Your task to perform on an android device: check data usage Image 0: 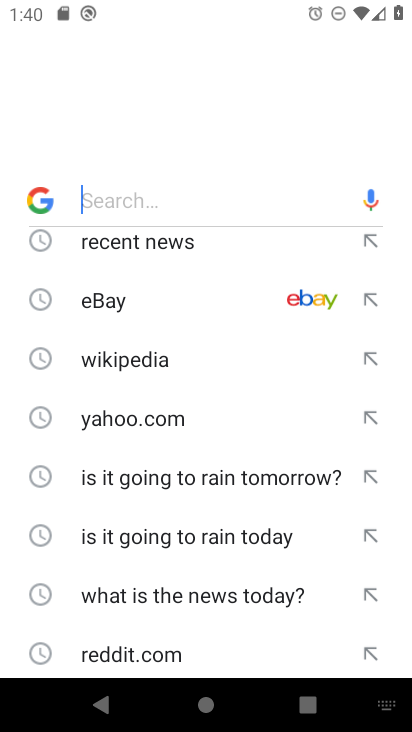
Step 0: press home button
Your task to perform on an android device: check data usage Image 1: 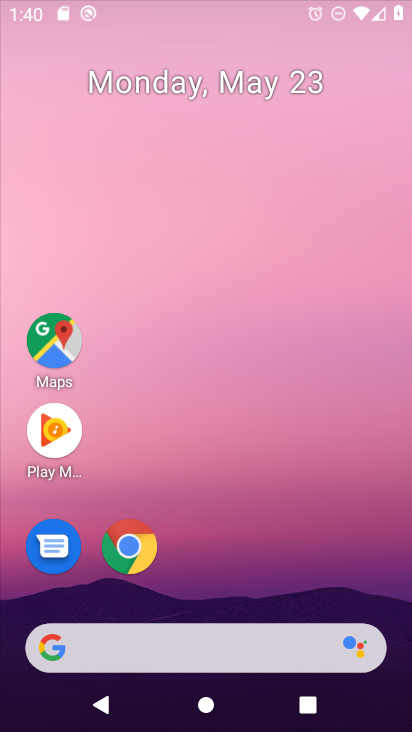
Step 1: drag from (262, 633) to (288, 164)
Your task to perform on an android device: check data usage Image 2: 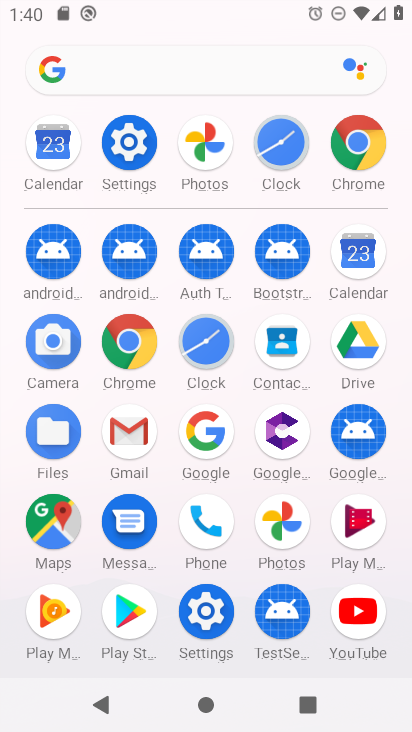
Step 2: click (133, 160)
Your task to perform on an android device: check data usage Image 3: 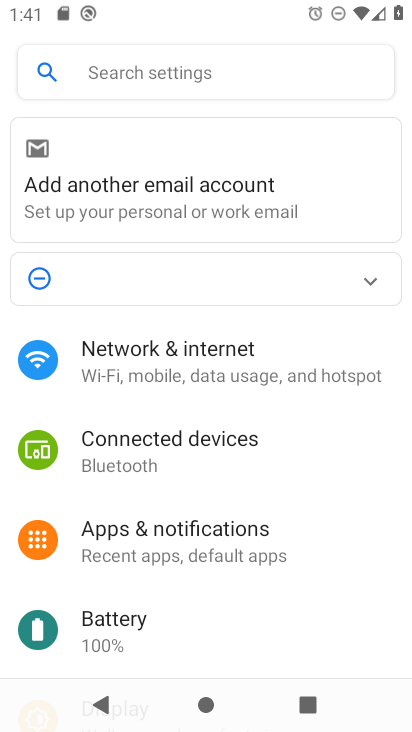
Step 3: click (274, 390)
Your task to perform on an android device: check data usage Image 4: 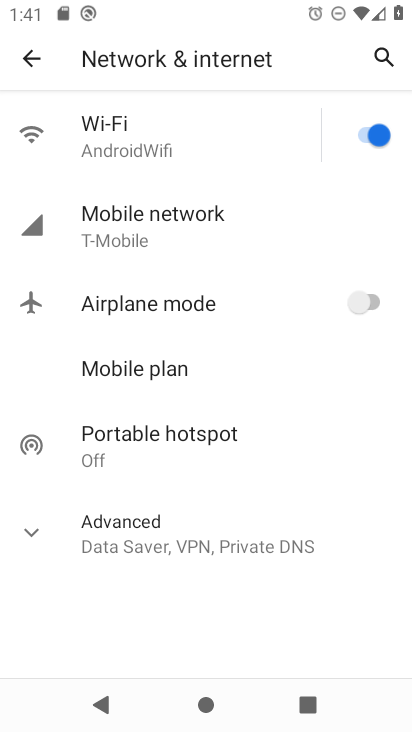
Step 4: click (204, 224)
Your task to perform on an android device: check data usage Image 5: 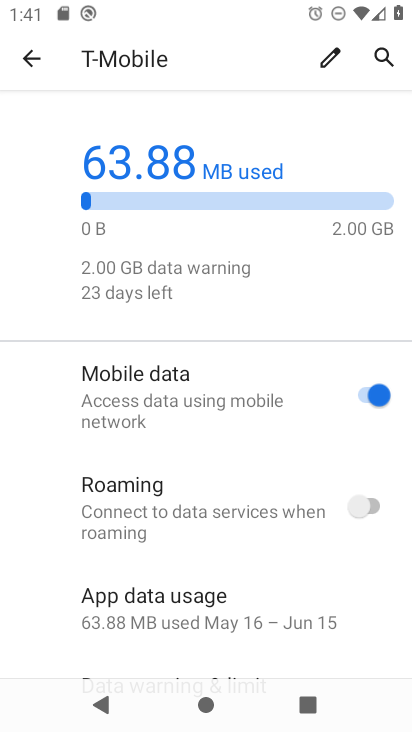
Step 5: drag from (178, 453) to (210, 307)
Your task to perform on an android device: check data usage Image 6: 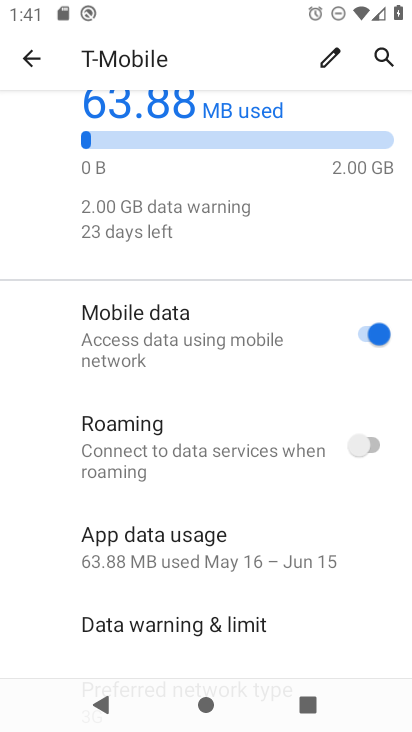
Step 6: click (174, 545)
Your task to perform on an android device: check data usage Image 7: 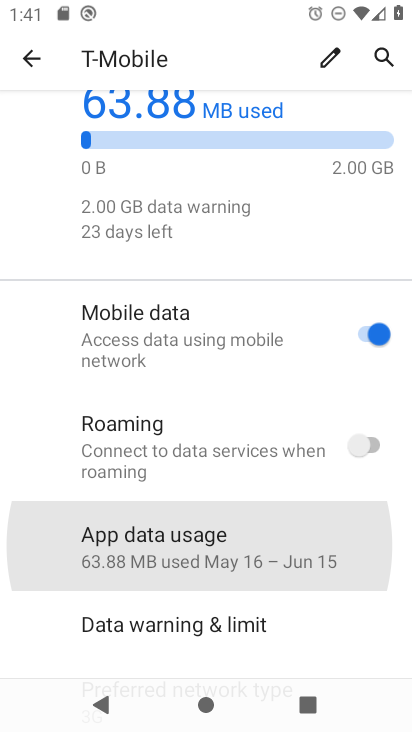
Step 7: click (174, 544)
Your task to perform on an android device: check data usage Image 8: 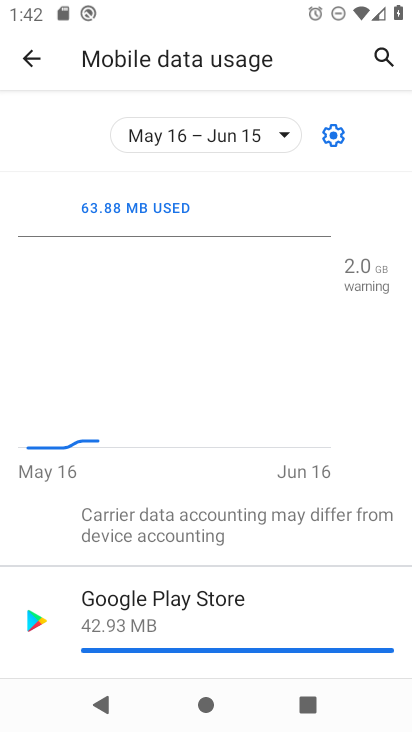
Step 8: task complete